Your task to perform on an android device: change the clock display to analog Image 0: 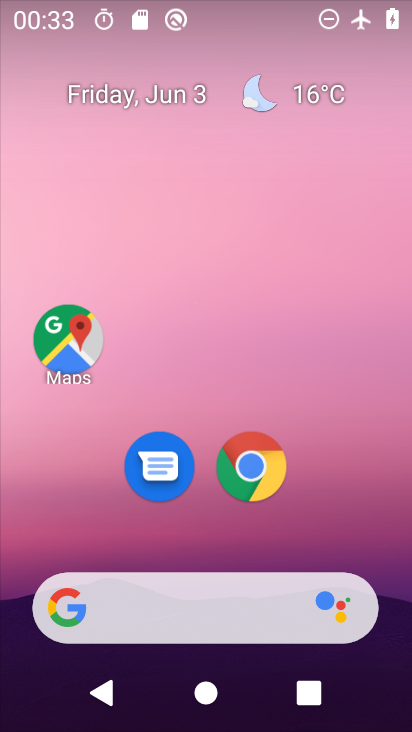
Step 0: drag from (190, 511) to (214, 253)
Your task to perform on an android device: change the clock display to analog Image 1: 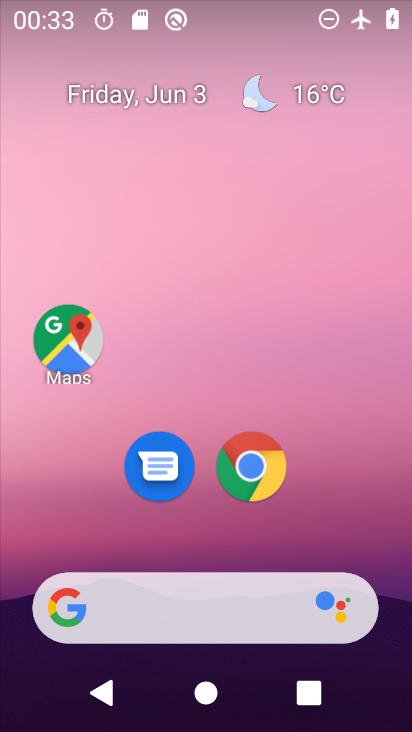
Step 1: drag from (210, 549) to (228, 255)
Your task to perform on an android device: change the clock display to analog Image 2: 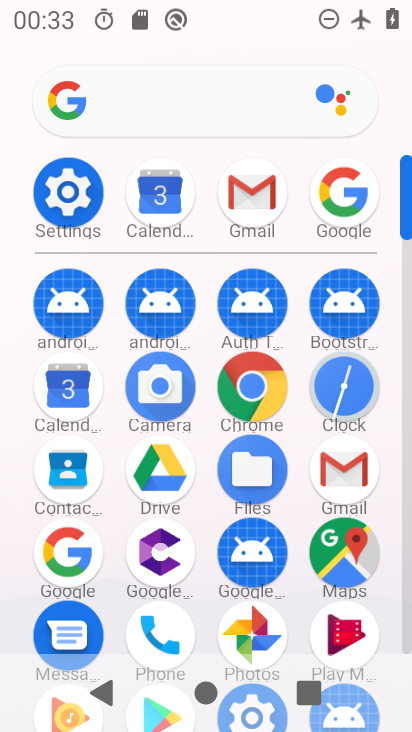
Step 2: click (354, 392)
Your task to perform on an android device: change the clock display to analog Image 3: 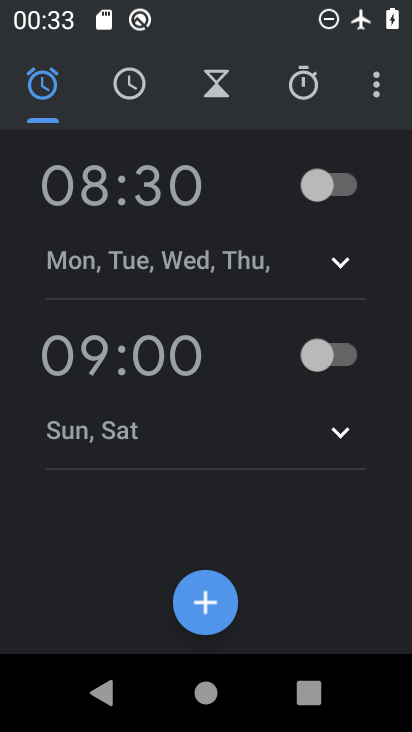
Step 3: click (384, 94)
Your task to perform on an android device: change the clock display to analog Image 4: 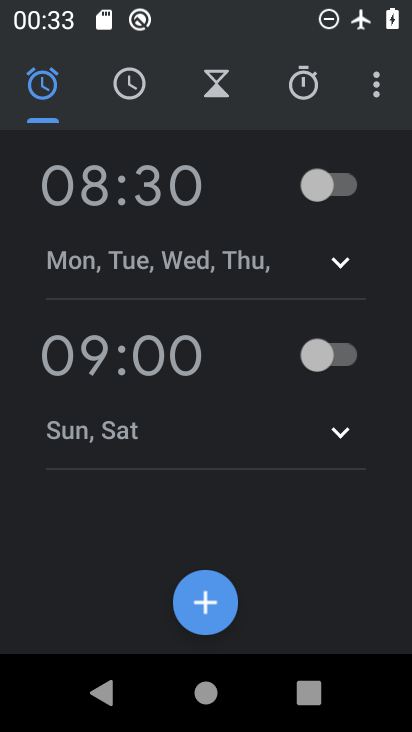
Step 4: click (364, 91)
Your task to perform on an android device: change the clock display to analog Image 5: 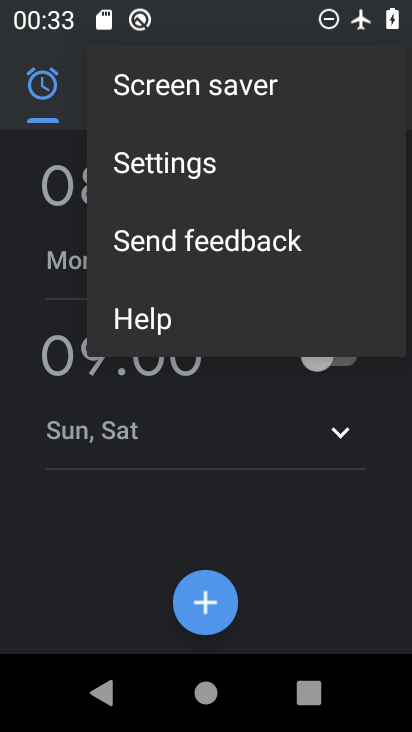
Step 5: click (259, 157)
Your task to perform on an android device: change the clock display to analog Image 6: 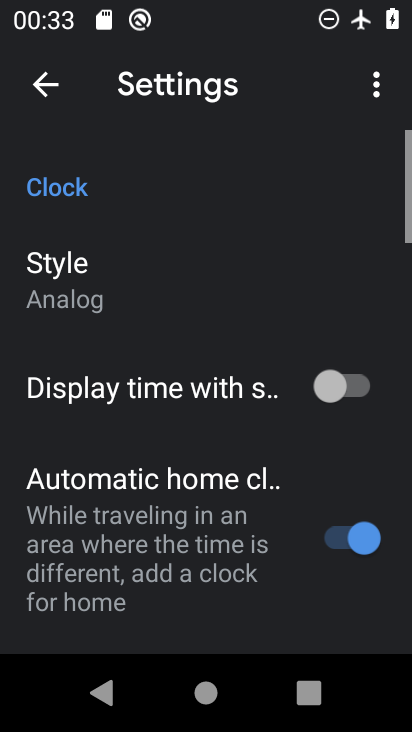
Step 6: click (150, 283)
Your task to perform on an android device: change the clock display to analog Image 7: 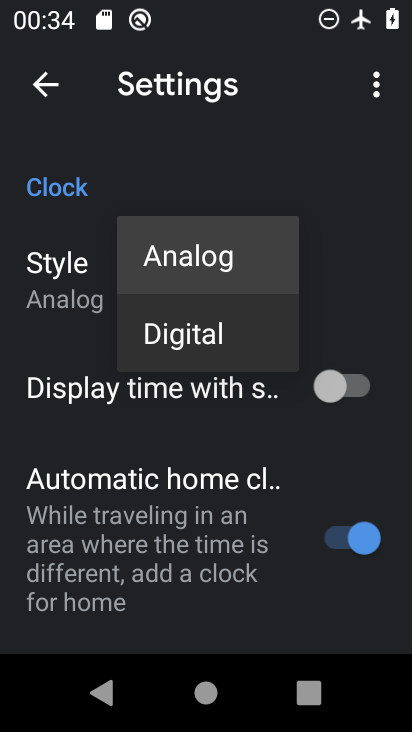
Step 7: task complete